Your task to perform on an android device: toggle javascript in the chrome app Image 0: 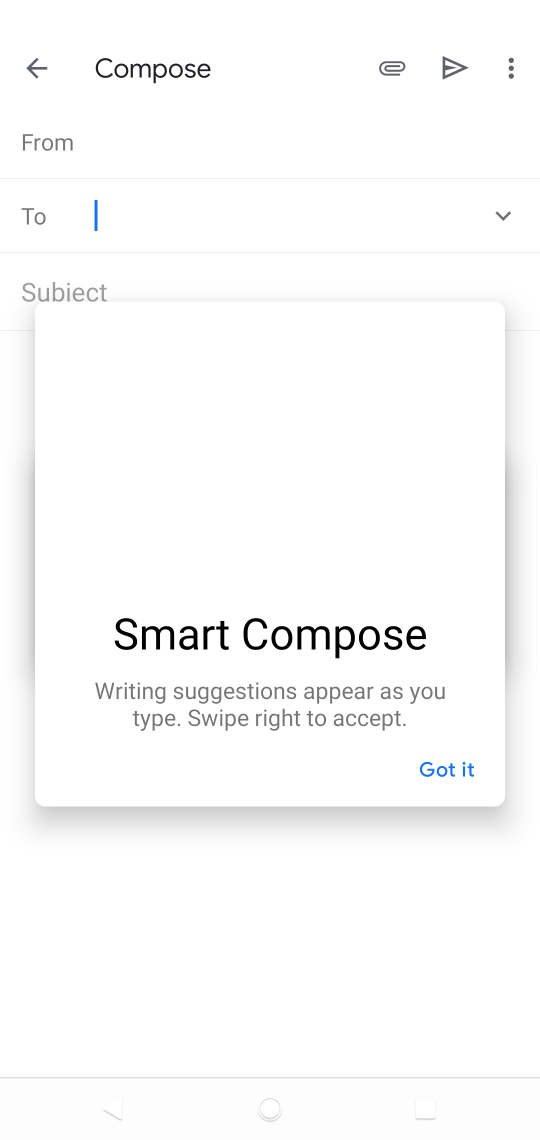
Step 0: press home button
Your task to perform on an android device: toggle javascript in the chrome app Image 1: 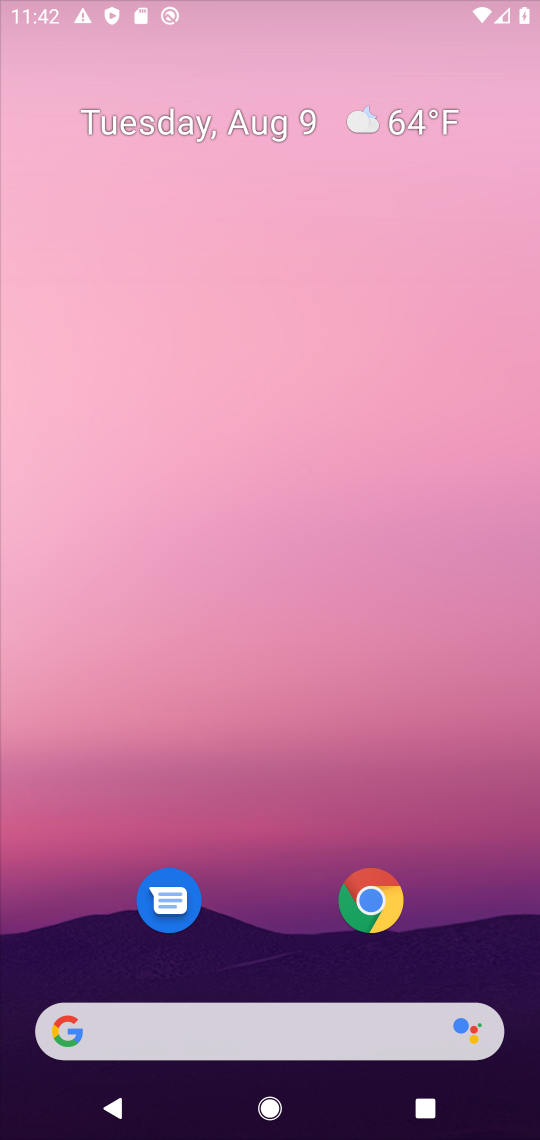
Step 1: press home button
Your task to perform on an android device: toggle javascript in the chrome app Image 2: 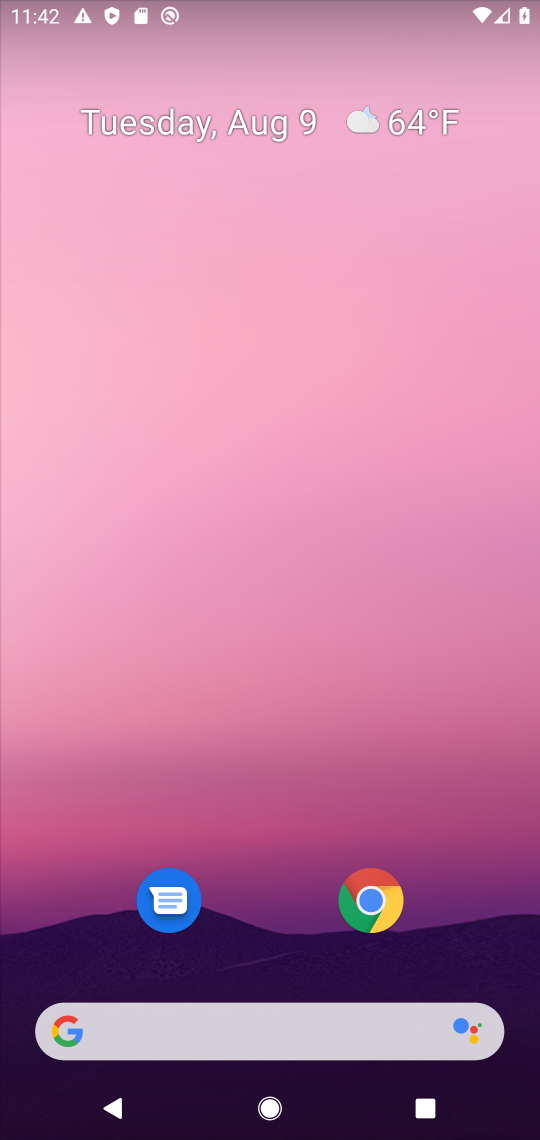
Step 2: click (378, 909)
Your task to perform on an android device: toggle javascript in the chrome app Image 3: 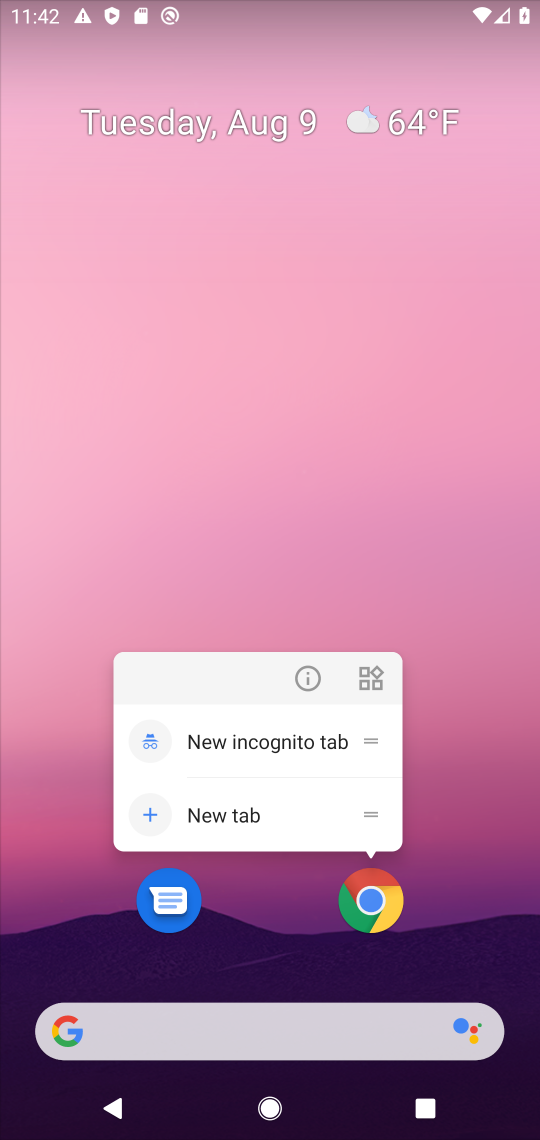
Step 3: click (378, 909)
Your task to perform on an android device: toggle javascript in the chrome app Image 4: 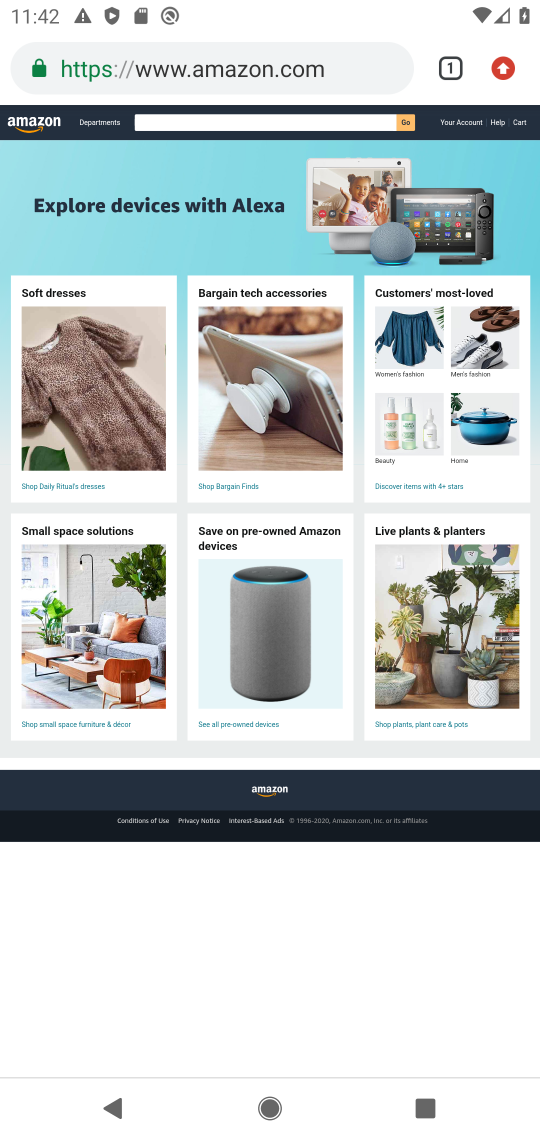
Step 4: click (510, 64)
Your task to perform on an android device: toggle javascript in the chrome app Image 5: 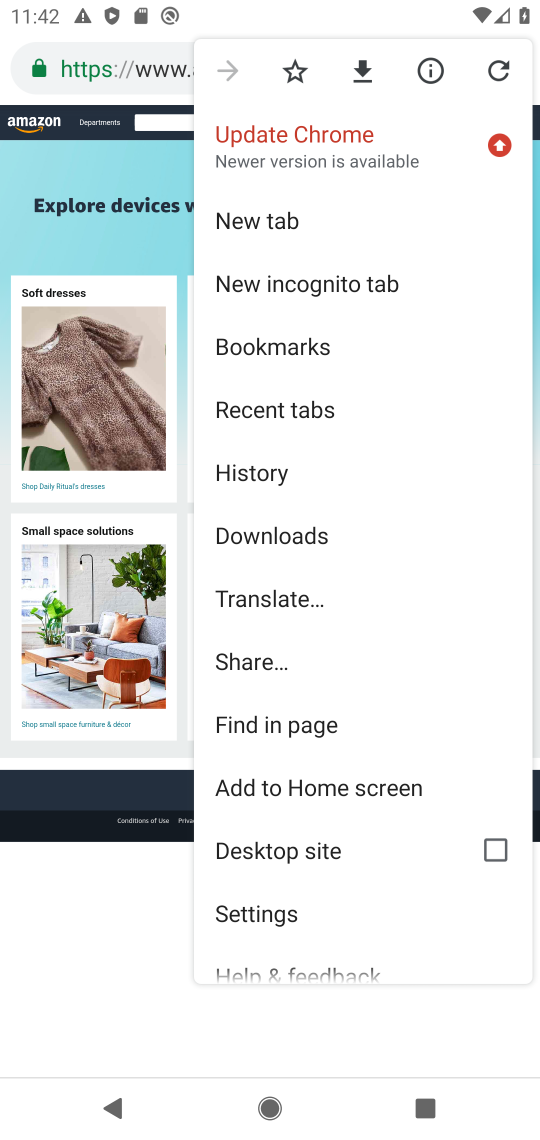
Step 5: click (286, 908)
Your task to perform on an android device: toggle javascript in the chrome app Image 6: 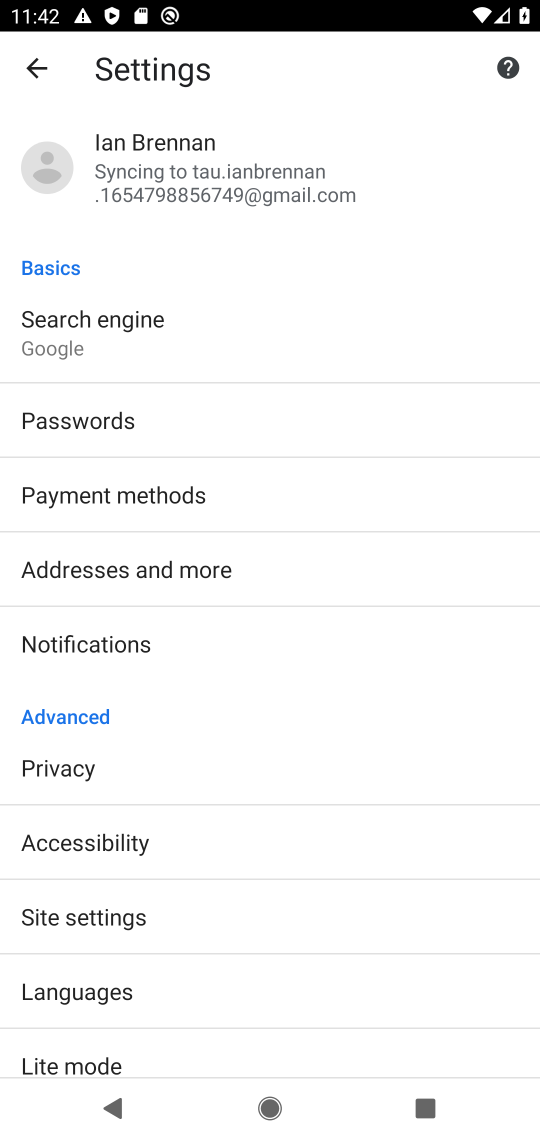
Step 6: click (286, 908)
Your task to perform on an android device: toggle javascript in the chrome app Image 7: 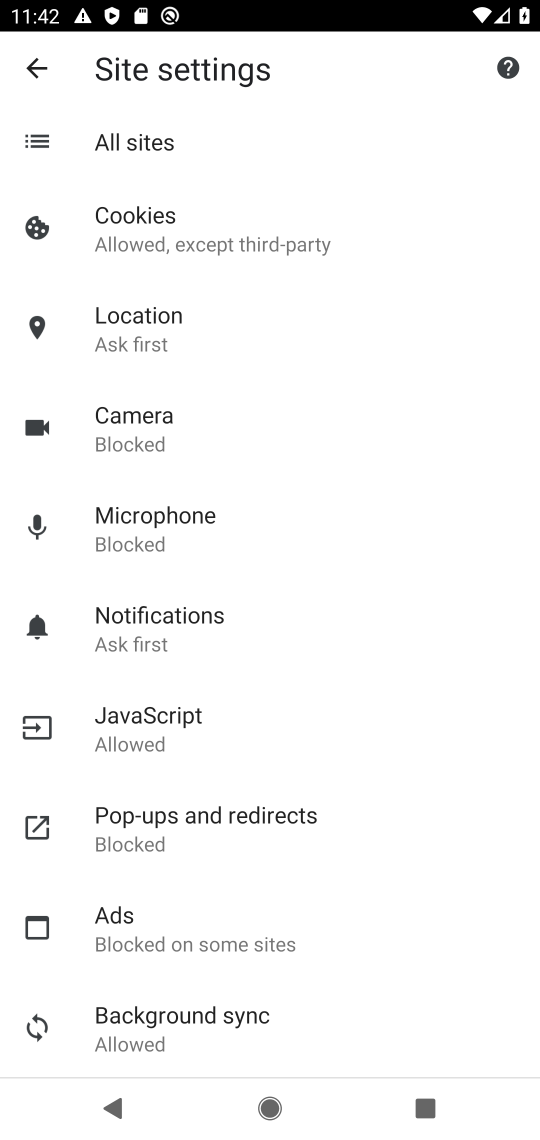
Step 7: click (212, 740)
Your task to perform on an android device: toggle javascript in the chrome app Image 8: 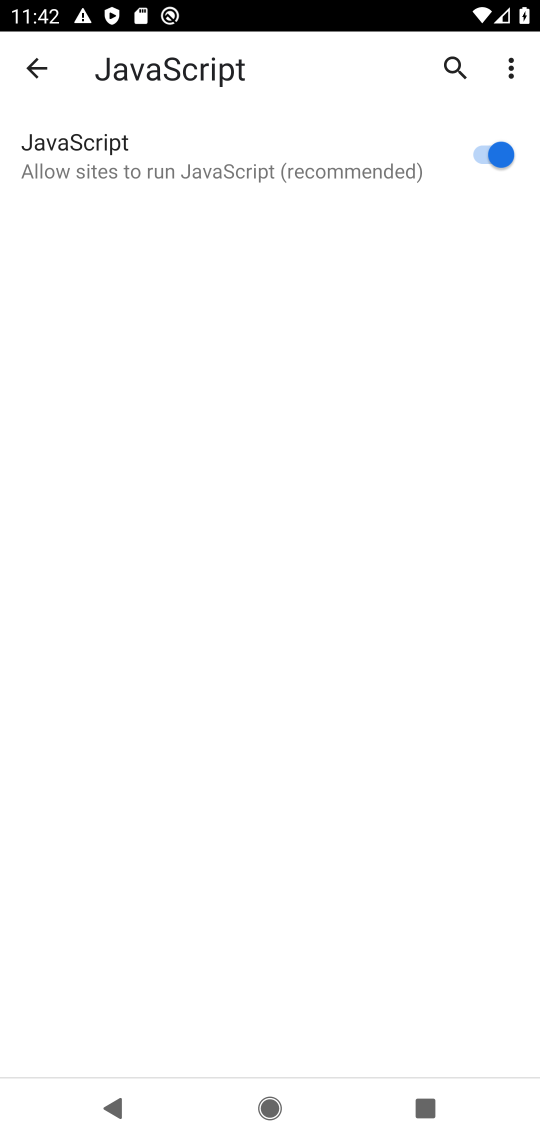
Step 8: click (495, 148)
Your task to perform on an android device: toggle javascript in the chrome app Image 9: 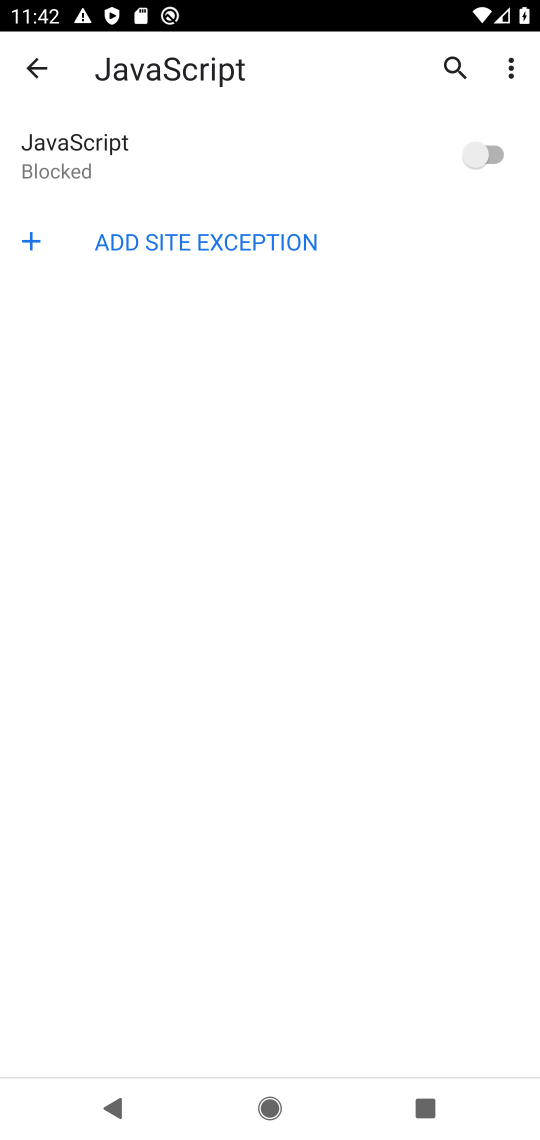
Step 9: task complete